Your task to perform on an android device: uninstall "Adobe Acrobat Reader: Edit PDF" Image 0: 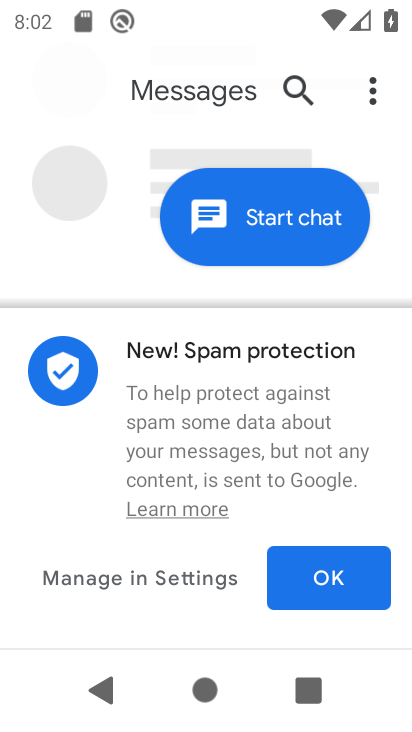
Step 0: press home button
Your task to perform on an android device: uninstall "Adobe Acrobat Reader: Edit PDF" Image 1: 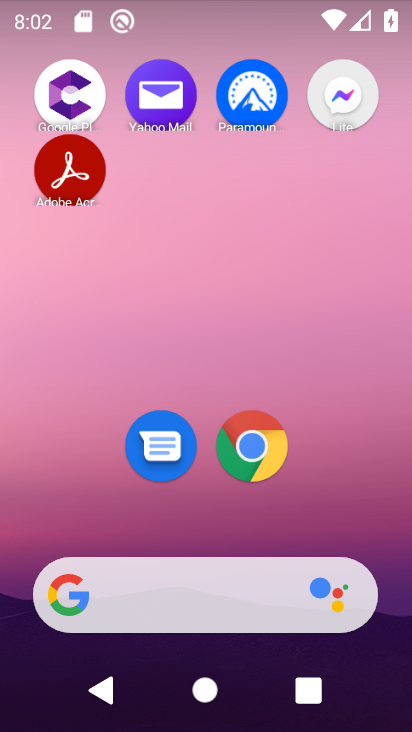
Step 1: drag from (203, 292) to (203, 10)
Your task to perform on an android device: uninstall "Adobe Acrobat Reader: Edit PDF" Image 2: 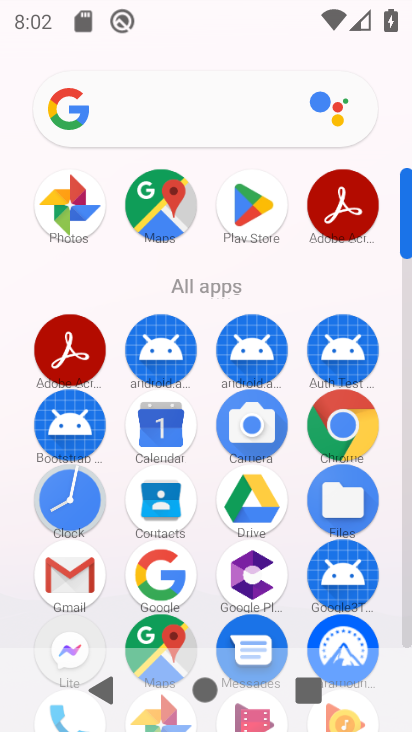
Step 2: click (238, 212)
Your task to perform on an android device: uninstall "Adobe Acrobat Reader: Edit PDF" Image 3: 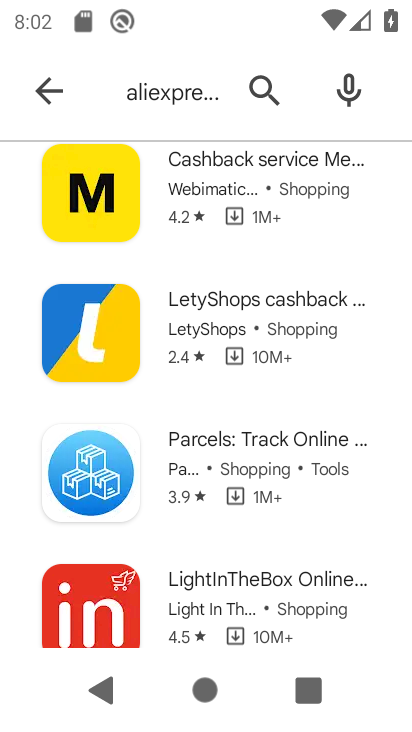
Step 3: click (254, 86)
Your task to perform on an android device: uninstall "Adobe Acrobat Reader: Edit PDF" Image 4: 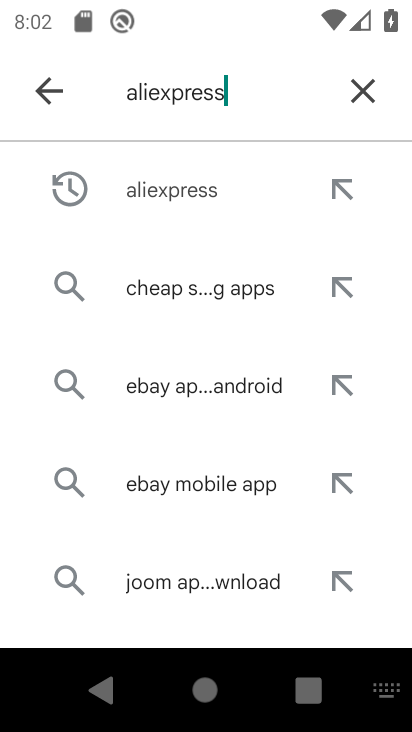
Step 4: click (368, 88)
Your task to perform on an android device: uninstall "Adobe Acrobat Reader: Edit PDF" Image 5: 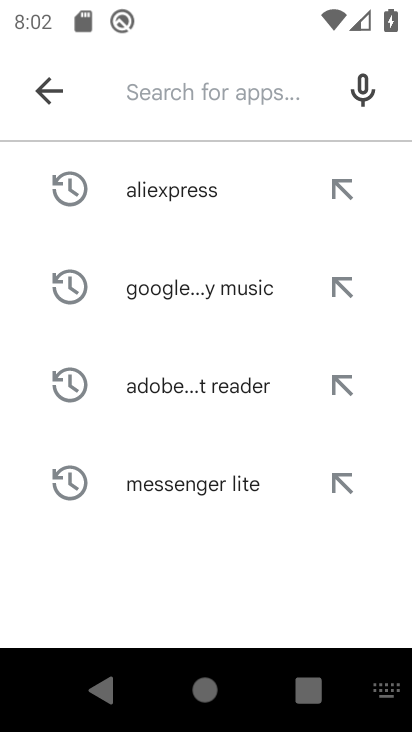
Step 5: type "Adobe Acrobat Reader: Edit PDF"
Your task to perform on an android device: uninstall "Adobe Acrobat Reader: Edit PDF" Image 6: 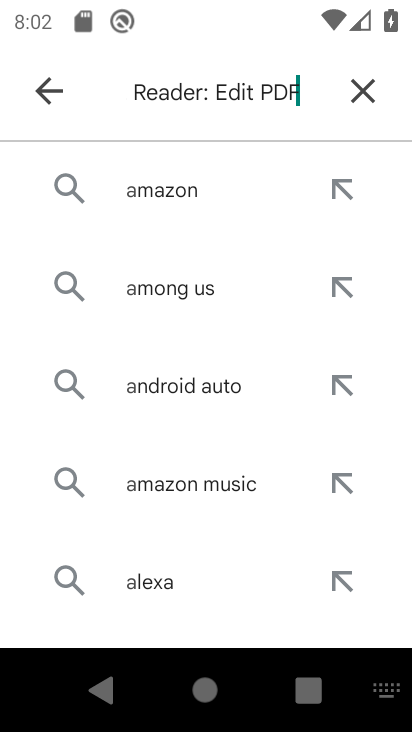
Step 6: type ""
Your task to perform on an android device: uninstall "Adobe Acrobat Reader: Edit PDF" Image 7: 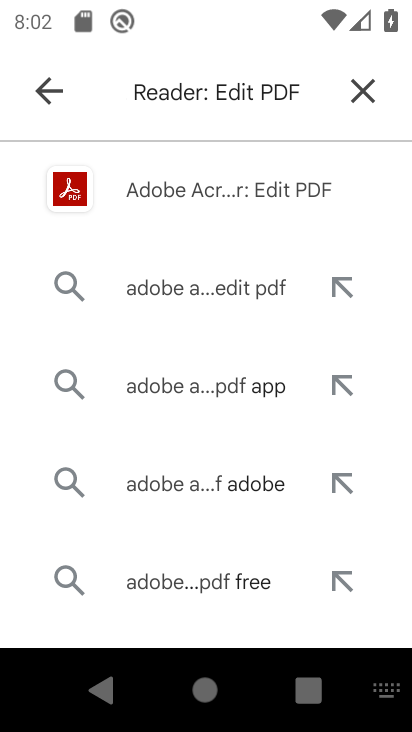
Step 7: click (223, 202)
Your task to perform on an android device: uninstall "Adobe Acrobat Reader: Edit PDF" Image 8: 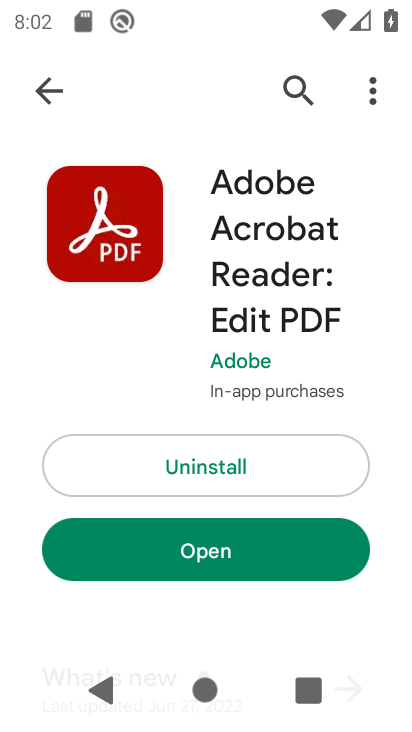
Step 8: click (251, 451)
Your task to perform on an android device: uninstall "Adobe Acrobat Reader: Edit PDF" Image 9: 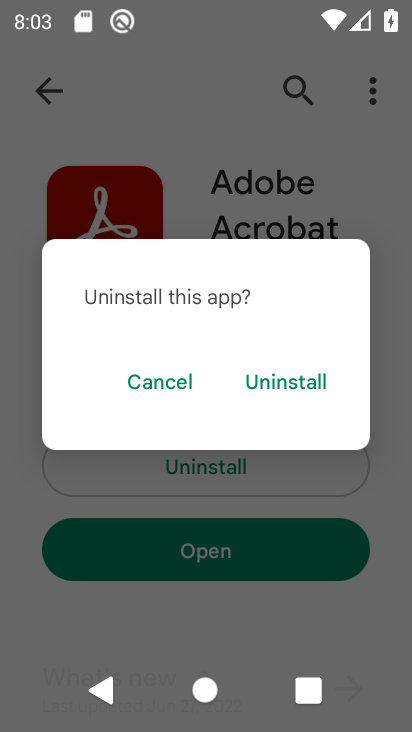
Step 9: click (294, 371)
Your task to perform on an android device: uninstall "Adobe Acrobat Reader: Edit PDF" Image 10: 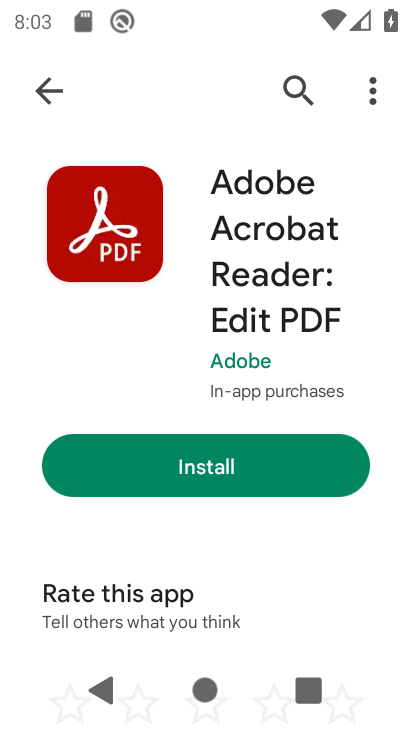
Step 10: task complete